Your task to perform on an android device: turn off translation in the chrome app Image 0: 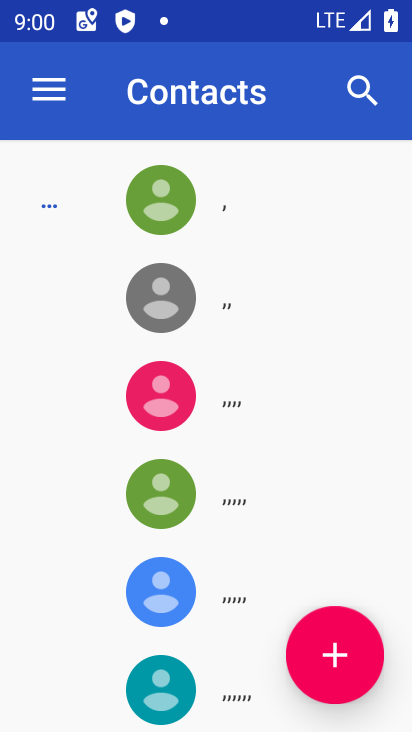
Step 0: press home button
Your task to perform on an android device: turn off translation in the chrome app Image 1: 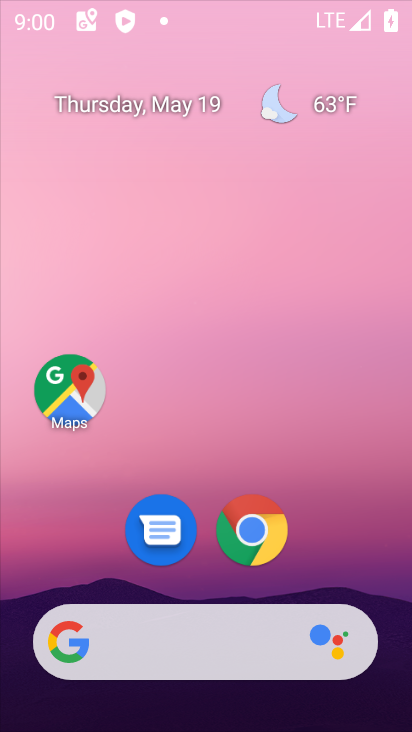
Step 1: click (179, 84)
Your task to perform on an android device: turn off translation in the chrome app Image 2: 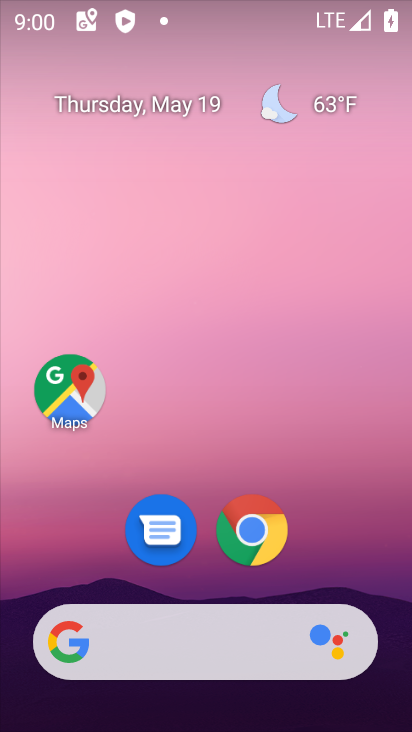
Step 2: click (272, 551)
Your task to perform on an android device: turn off translation in the chrome app Image 3: 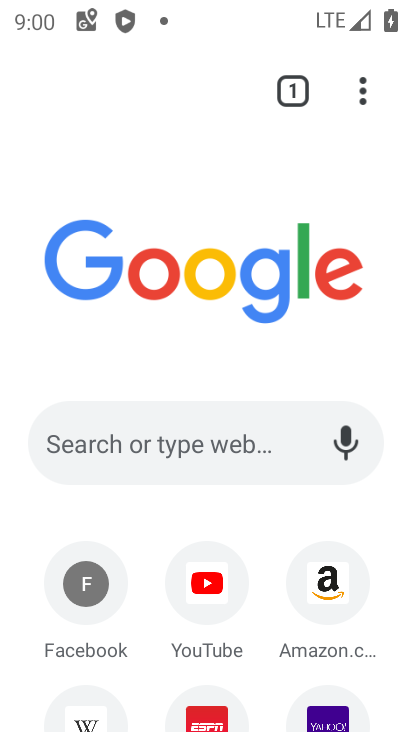
Step 3: click (364, 90)
Your task to perform on an android device: turn off translation in the chrome app Image 4: 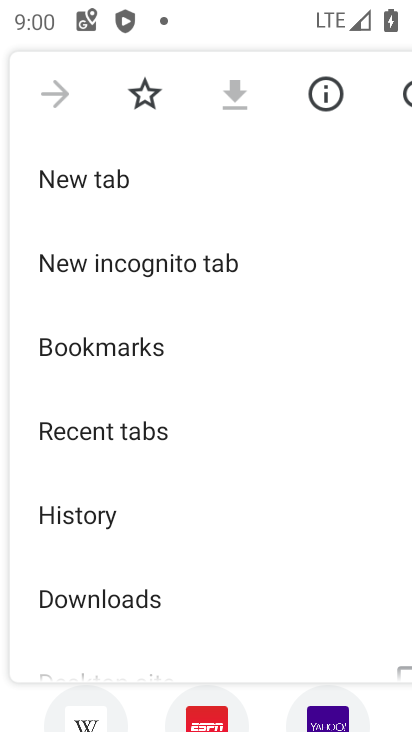
Step 4: task complete